Your task to perform on an android device: turn on sleep mode Image 0: 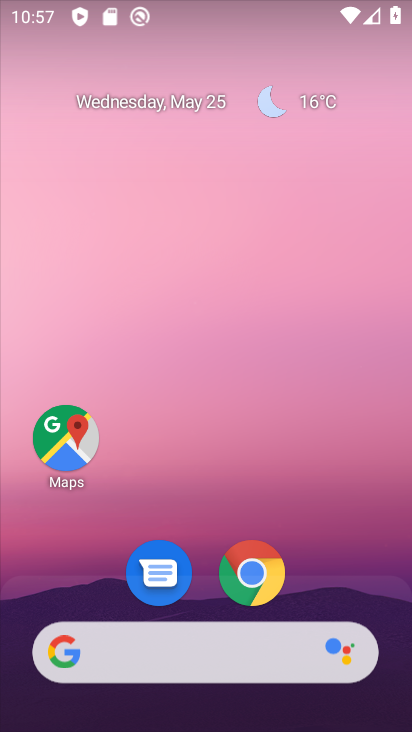
Step 0: drag from (385, 486) to (342, 5)
Your task to perform on an android device: turn on sleep mode Image 1: 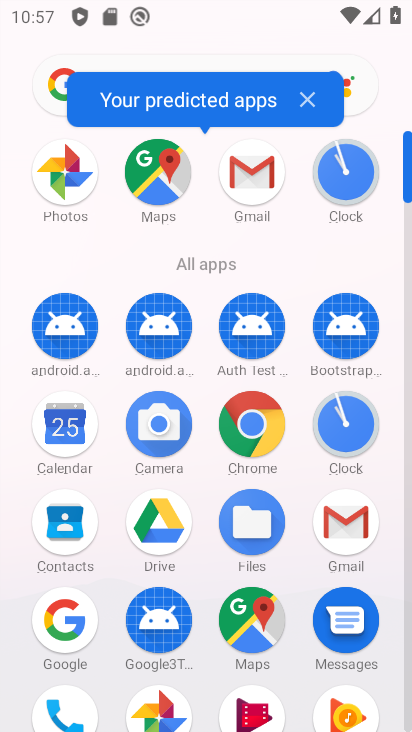
Step 1: drag from (405, 544) to (411, 504)
Your task to perform on an android device: turn on sleep mode Image 2: 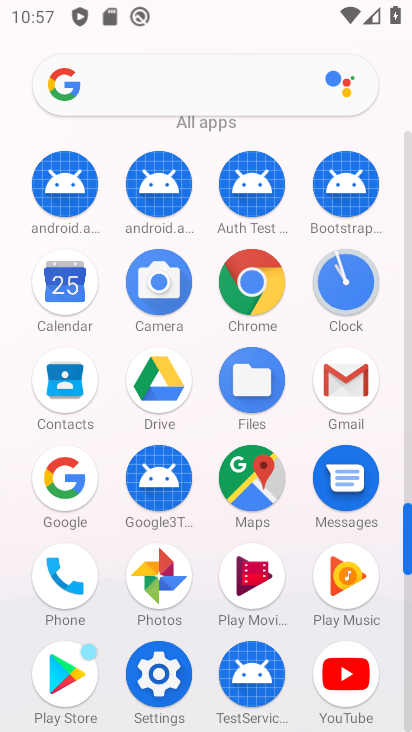
Step 2: click (162, 671)
Your task to perform on an android device: turn on sleep mode Image 3: 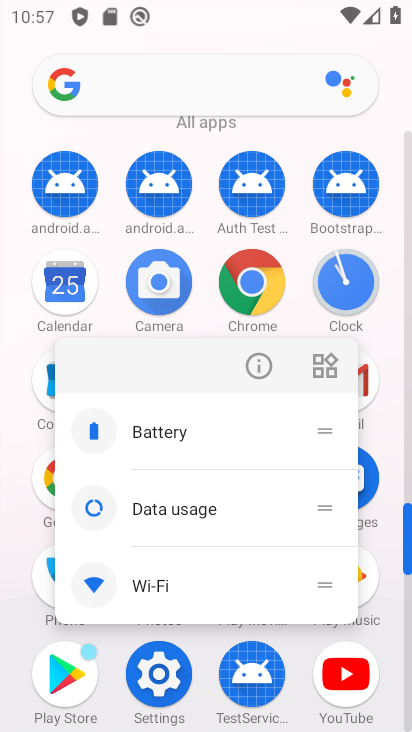
Step 3: click (161, 672)
Your task to perform on an android device: turn on sleep mode Image 4: 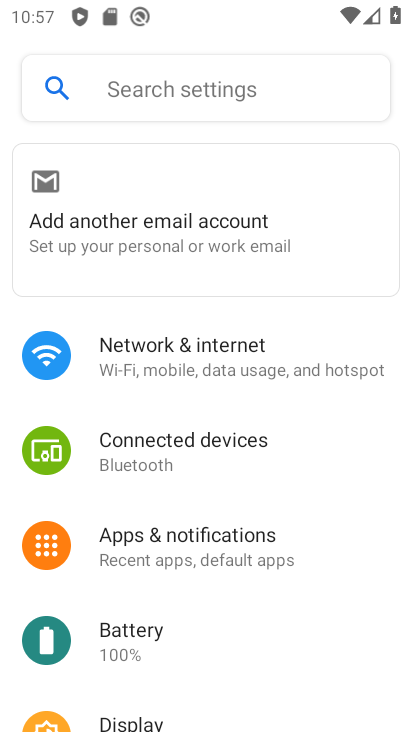
Step 4: drag from (215, 656) to (224, 534)
Your task to perform on an android device: turn on sleep mode Image 5: 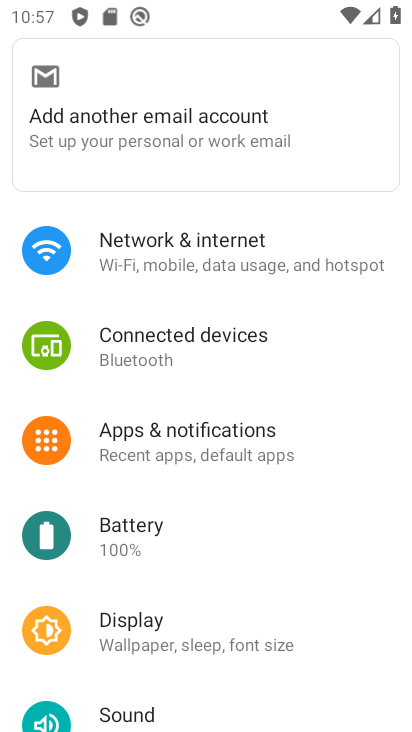
Step 5: click (136, 628)
Your task to perform on an android device: turn on sleep mode Image 6: 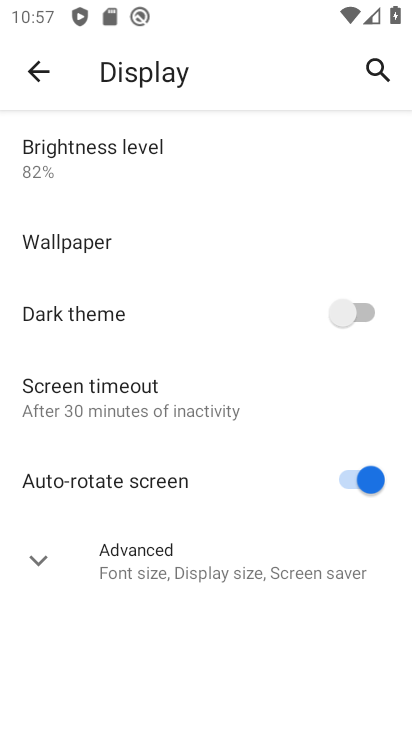
Step 6: click (39, 565)
Your task to perform on an android device: turn on sleep mode Image 7: 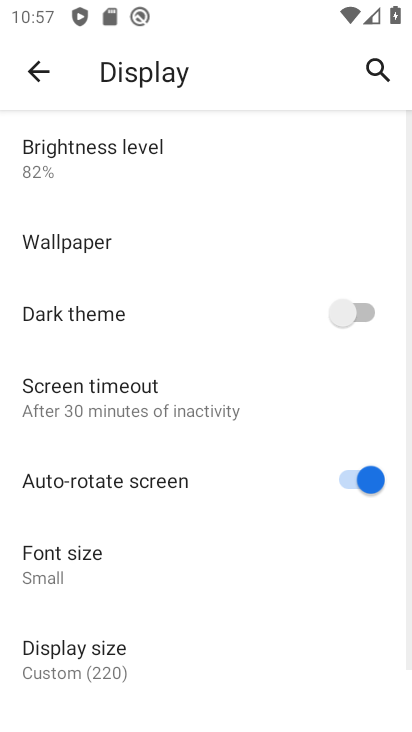
Step 7: task complete